Your task to perform on an android device: Go to display settings Image 0: 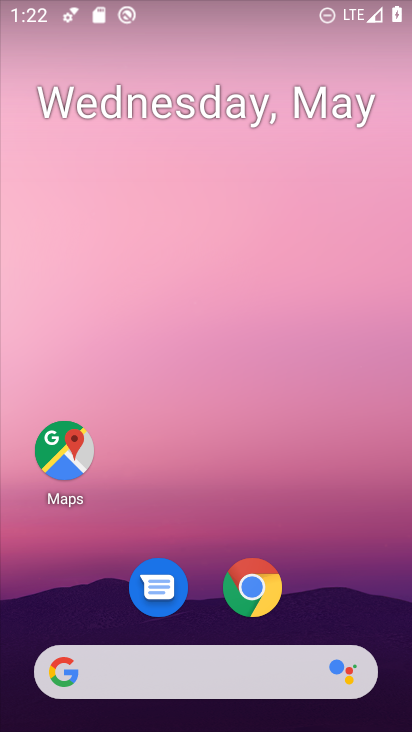
Step 0: drag from (195, 480) to (313, 237)
Your task to perform on an android device: Go to display settings Image 1: 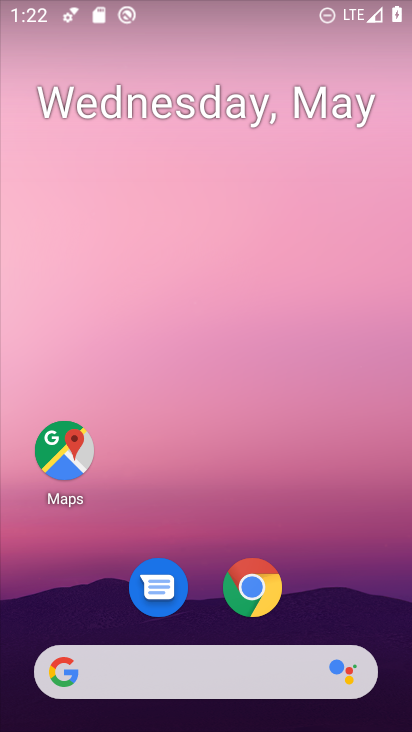
Step 1: drag from (161, 511) to (220, 212)
Your task to perform on an android device: Go to display settings Image 2: 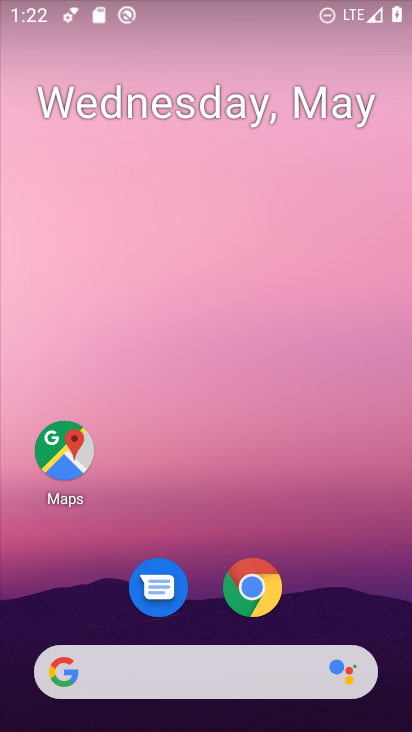
Step 2: drag from (253, 482) to (297, 226)
Your task to perform on an android device: Go to display settings Image 3: 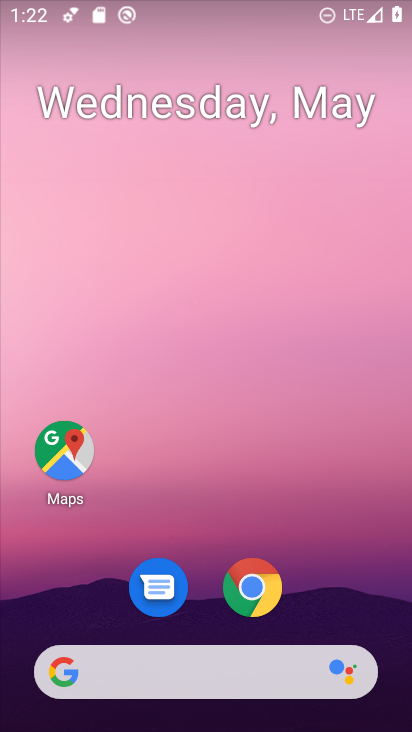
Step 3: drag from (284, 523) to (331, 258)
Your task to perform on an android device: Go to display settings Image 4: 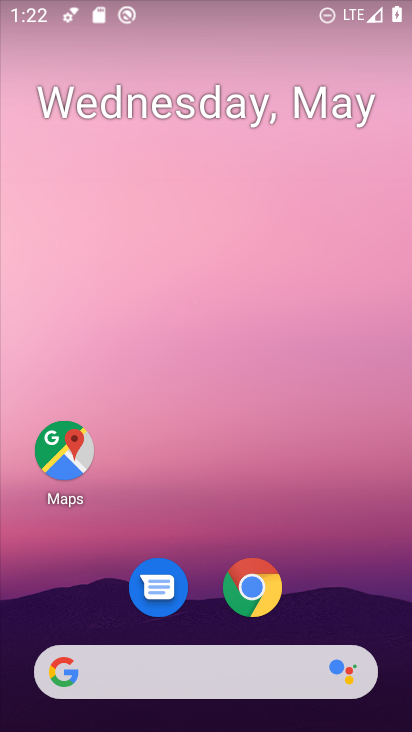
Step 4: drag from (318, 551) to (276, 119)
Your task to perform on an android device: Go to display settings Image 5: 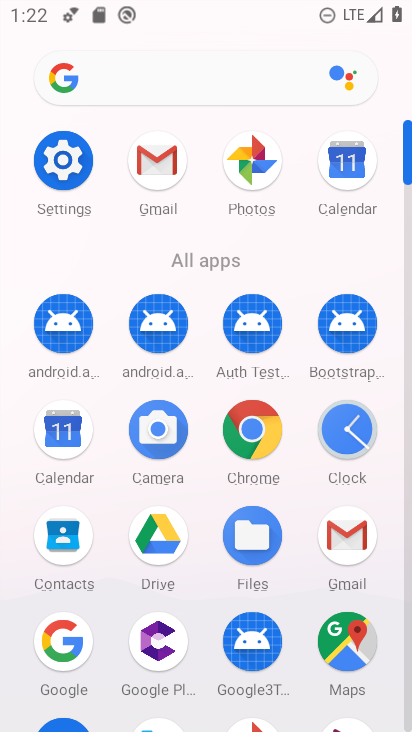
Step 5: click (72, 193)
Your task to perform on an android device: Go to display settings Image 6: 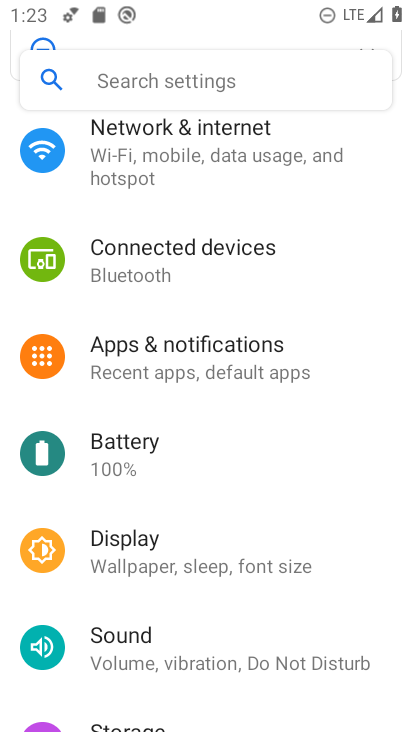
Step 6: click (80, 551)
Your task to perform on an android device: Go to display settings Image 7: 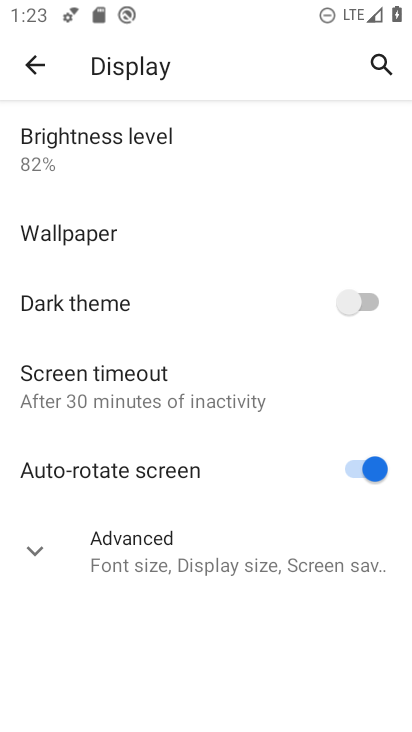
Step 7: task complete